Your task to perform on an android device: turn pop-ups off in chrome Image 0: 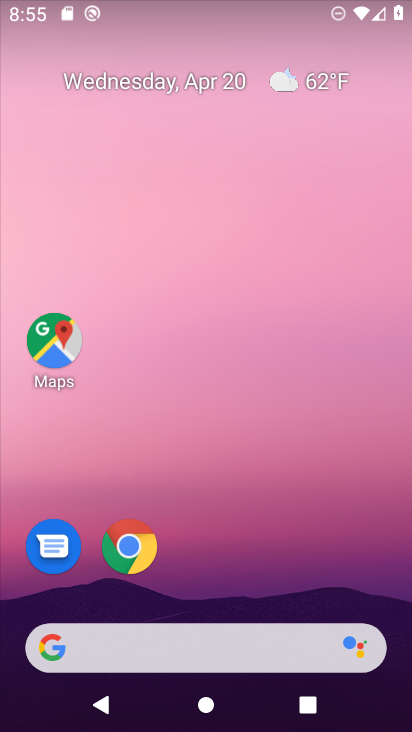
Step 0: click (142, 548)
Your task to perform on an android device: turn pop-ups off in chrome Image 1: 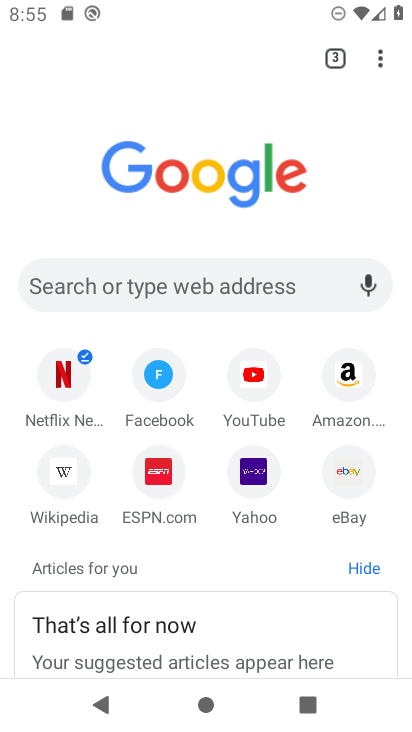
Step 1: click (383, 54)
Your task to perform on an android device: turn pop-ups off in chrome Image 2: 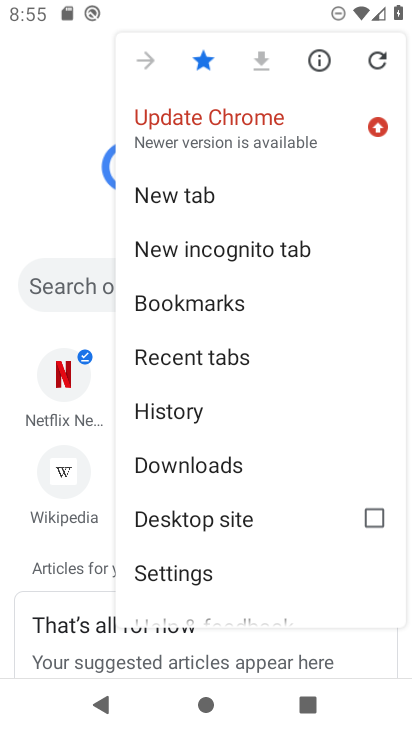
Step 2: click (212, 570)
Your task to perform on an android device: turn pop-ups off in chrome Image 3: 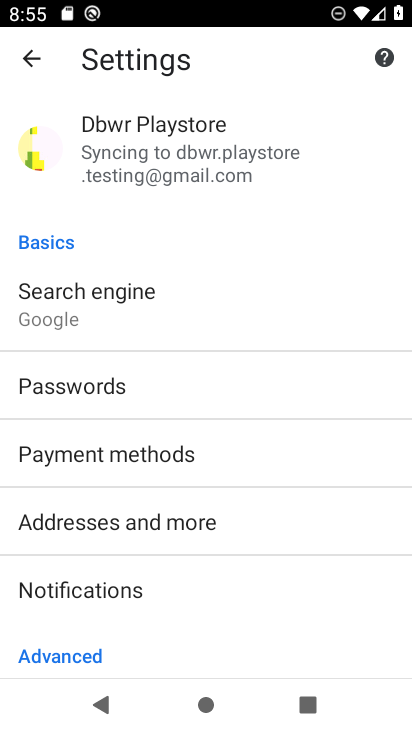
Step 3: drag from (212, 567) to (216, 328)
Your task to perform on an android device: turn pop-ups off in chrome Image 4: 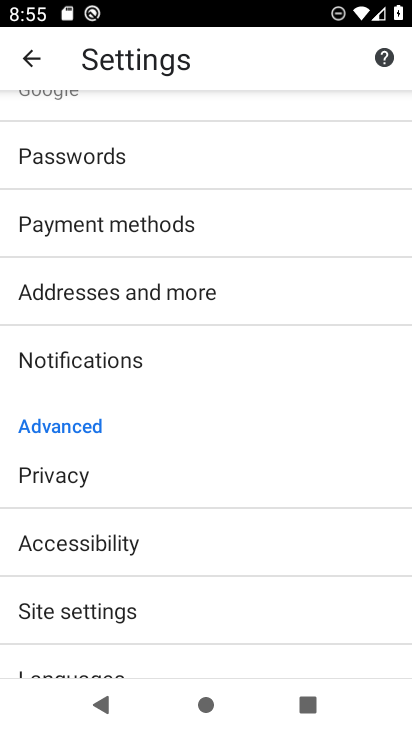
Step 4: click (161, 601)
Your task to perform on an android device: turn pop-ups off in chrome Image 5: 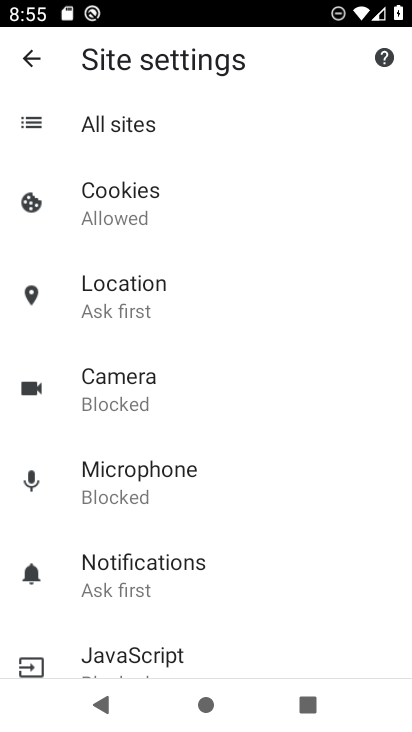
Step 5: drag from (216, 601) to (245, 269)
Your task to perform on an android device: turn pop-ups off in chrome Image 6: 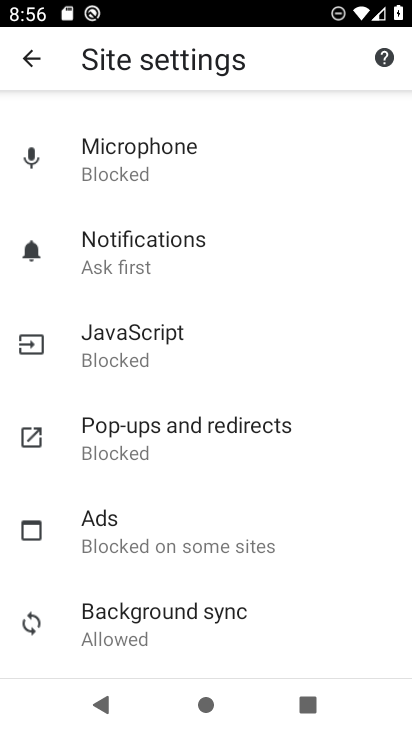
Step 6: click (233, 444)
Your task to perform on an android device: turn pop-ups off in chrome Image 7: 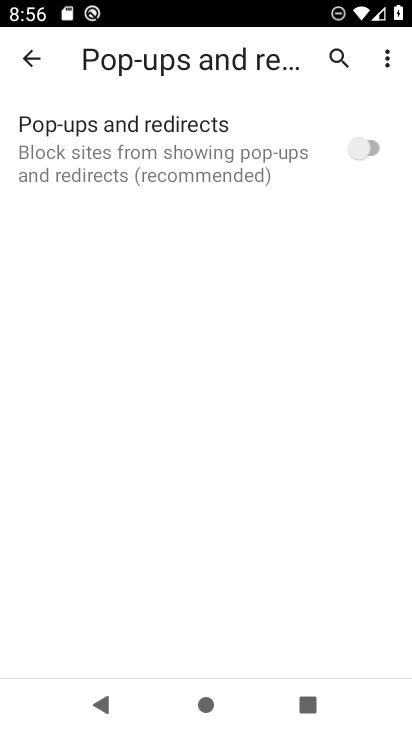
Step 7: task complete